Your task to perform on an android device: Go to calendar. Show me events next week Image 0: 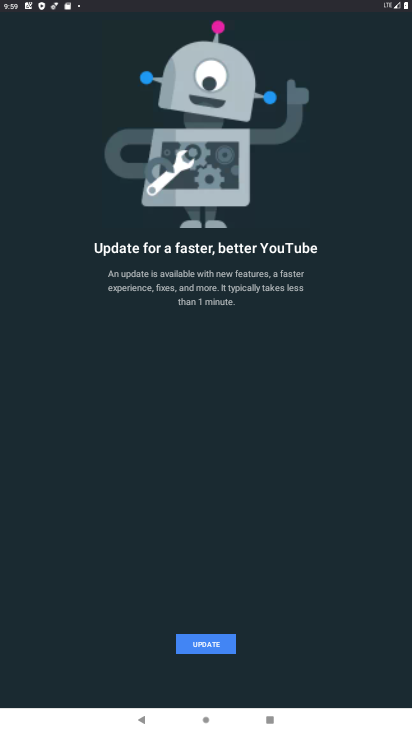
Step 0: press home button
Your task to perform on an android device: Go to calendar. Show me events next week Image 1: 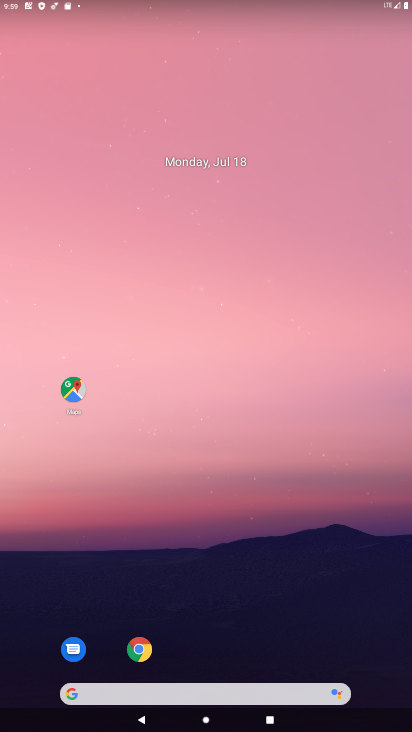
Step 1: drag from (91, 721) to (194, 117)
Your task to perform on an android device: Go to calendar. Show me events next week Image 2: 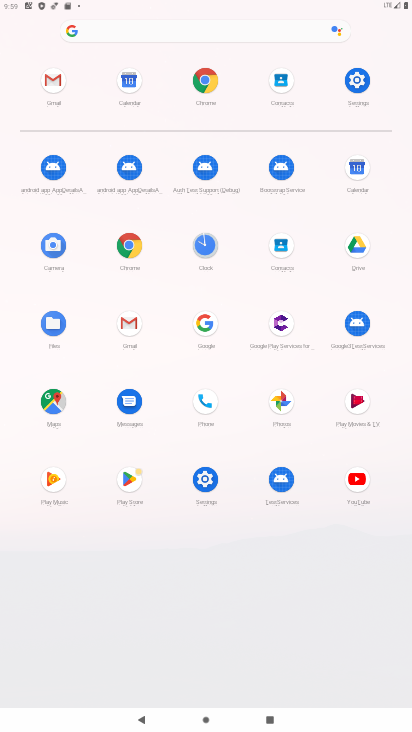
Step 2: click (361, 163)
Your task to perform on an android device: Go to calendar. Show me events next week Image 3: 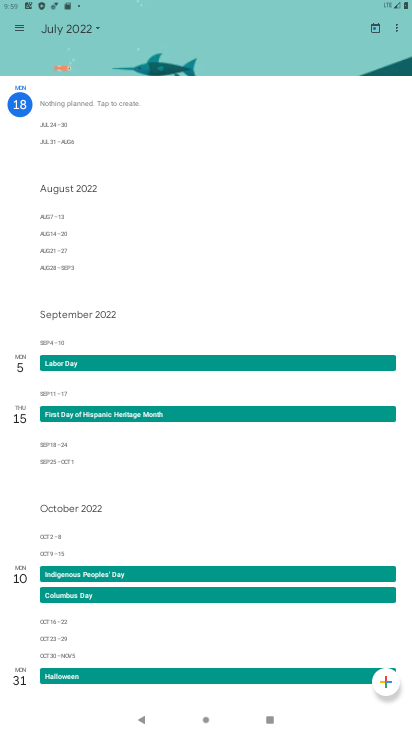
Step 3: click (59, 124)
Your task to perform on an android device: Go to calendar. Show me events next week Image 4: 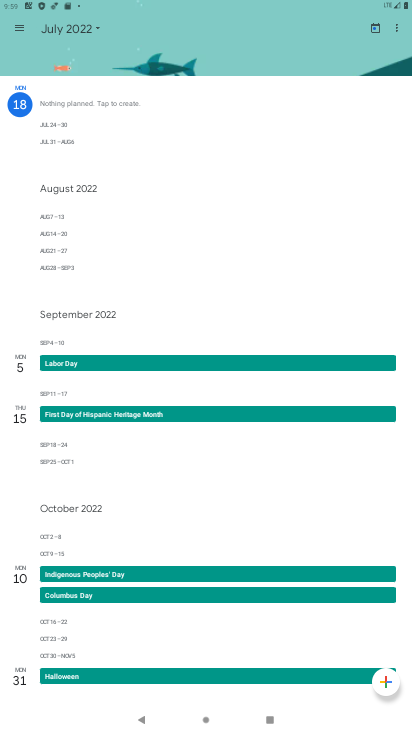
Step 4: task complete